Your task to perform on an android device: open app "AliExpress" Image 0: 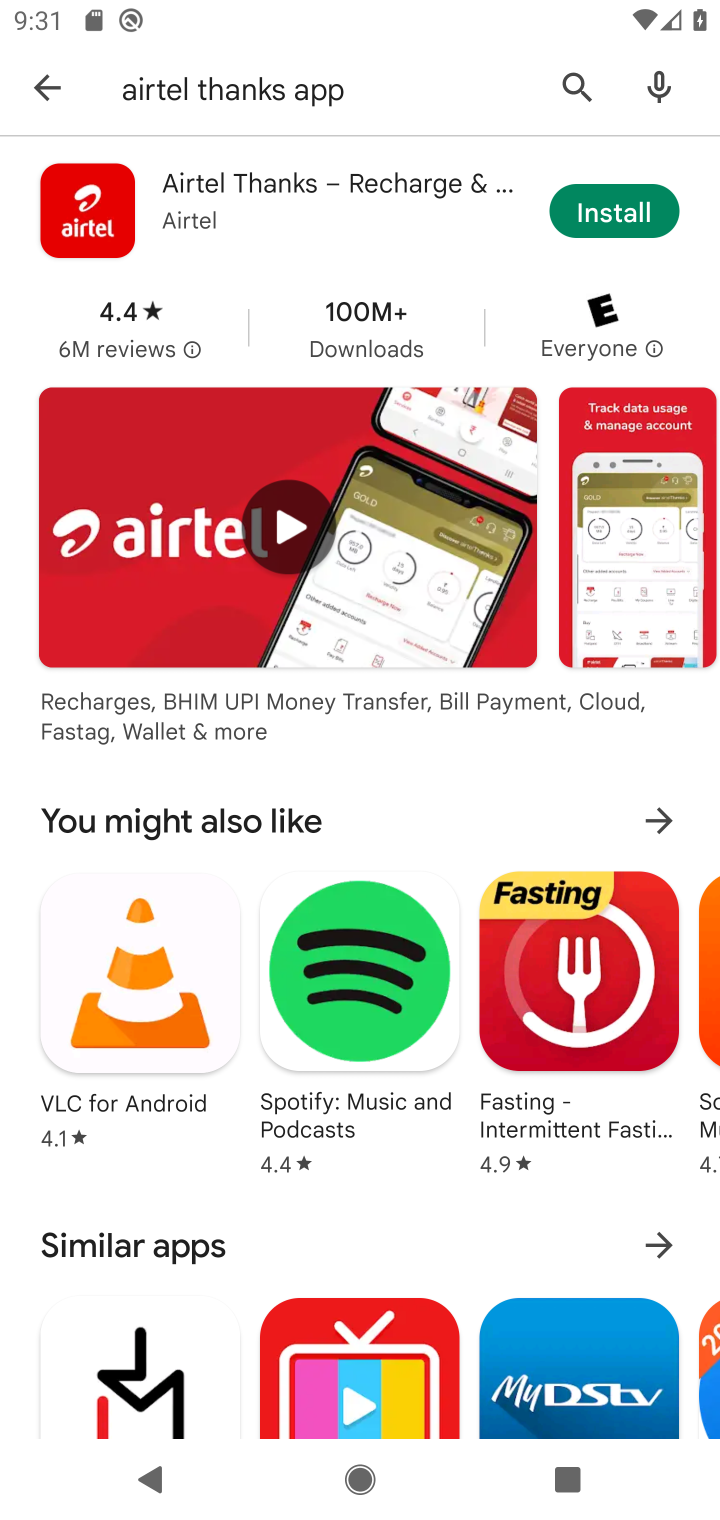
Step 0: click (68, 74)
Your task to perform on an android device: open app "AliExpress" Image 1: 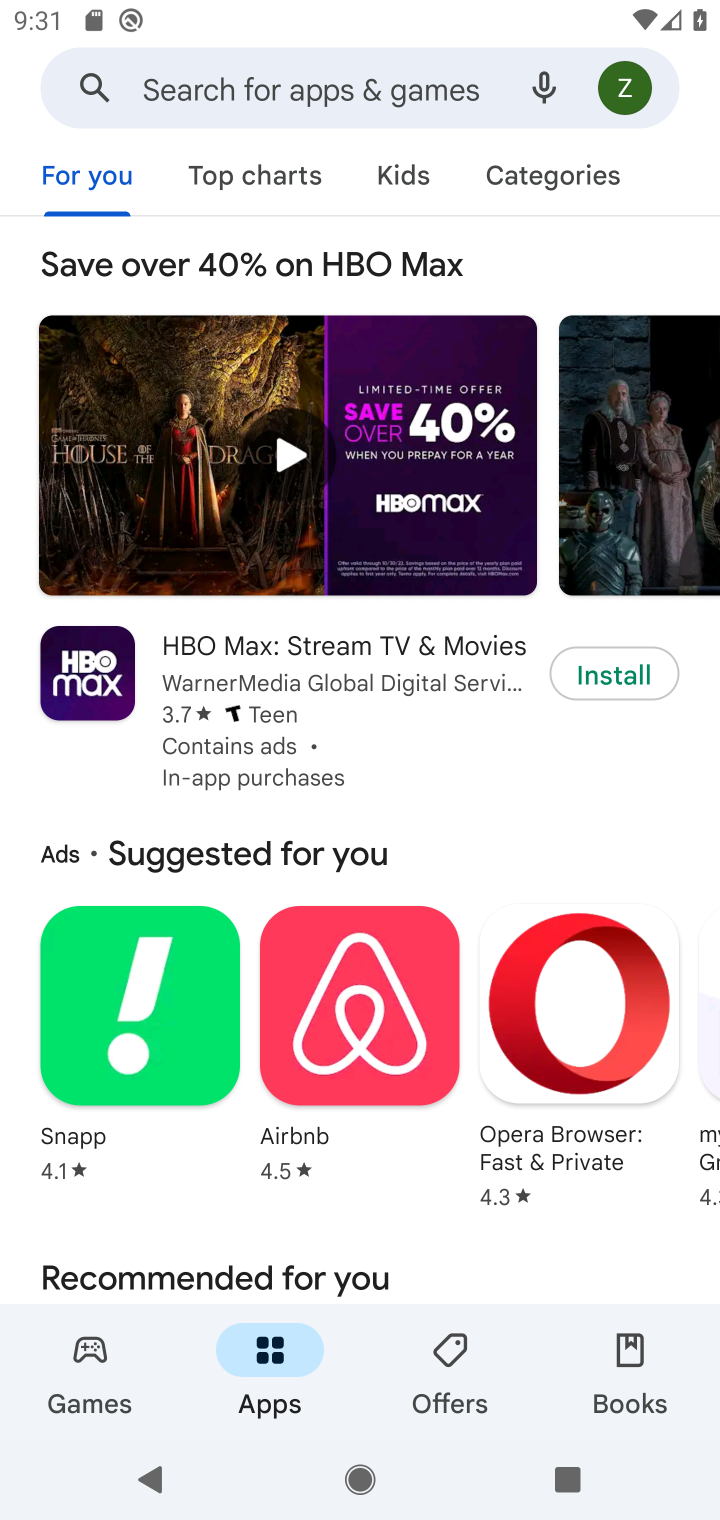
Step 1: click (424, 64)
Your task to perform on an android device: open app "AliExpress" Image 2: 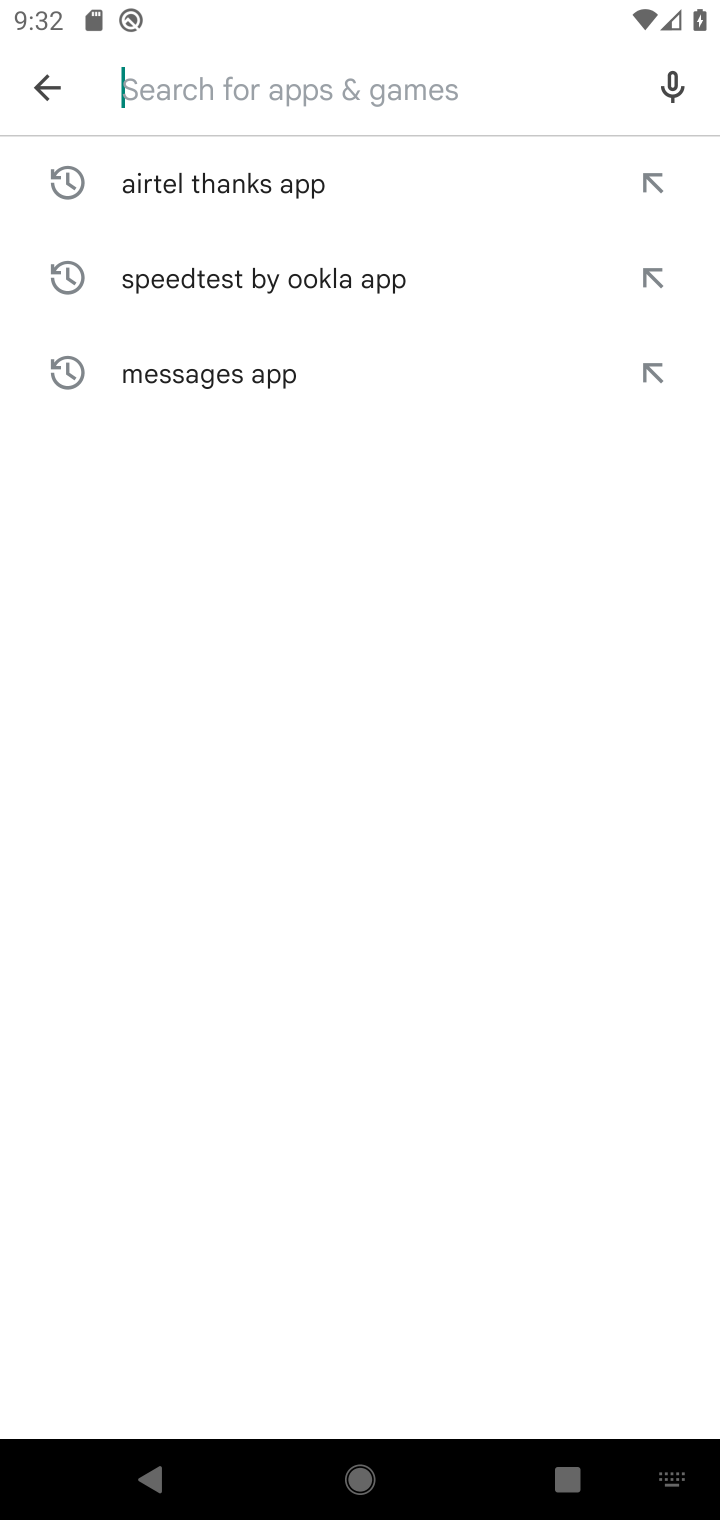
Step 2: type "AliExpress "
Your task to perform on an android device: open app "AliExpress" Image 3: 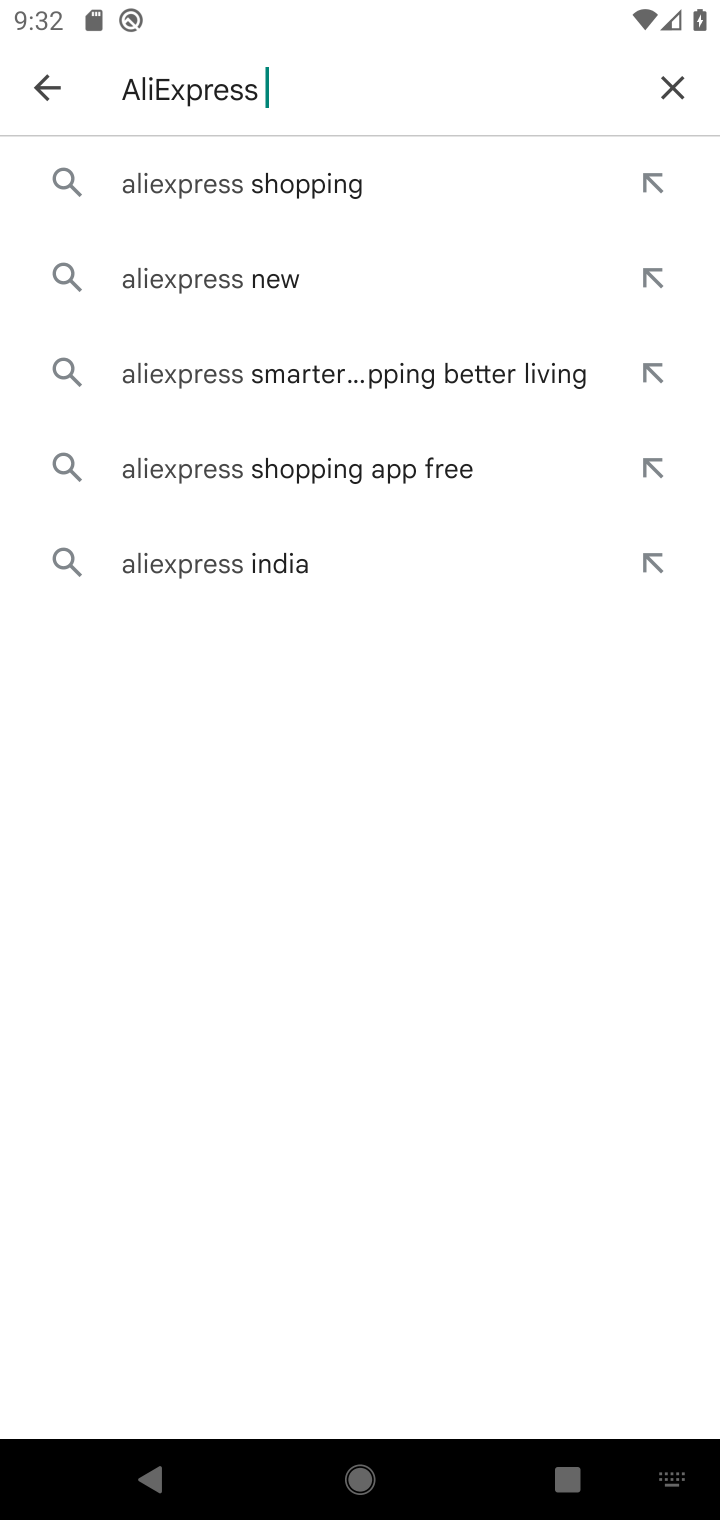
Step 3: click (306, 181)
Your task to perform on an android device: open app "AliExpress" Image 4: 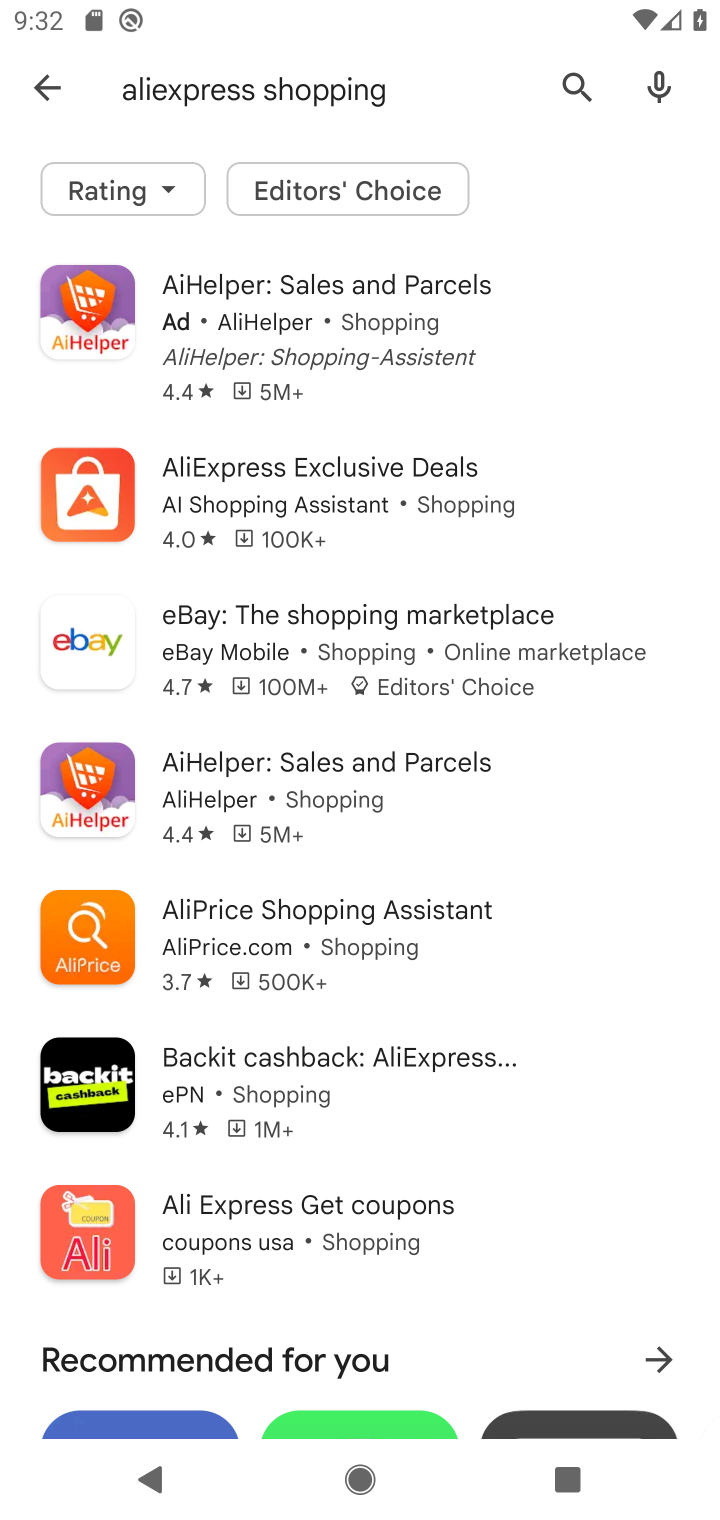
Step 4: click (300, 506)
Your task to perform on an android device: open app "AliExpress" Image 5: 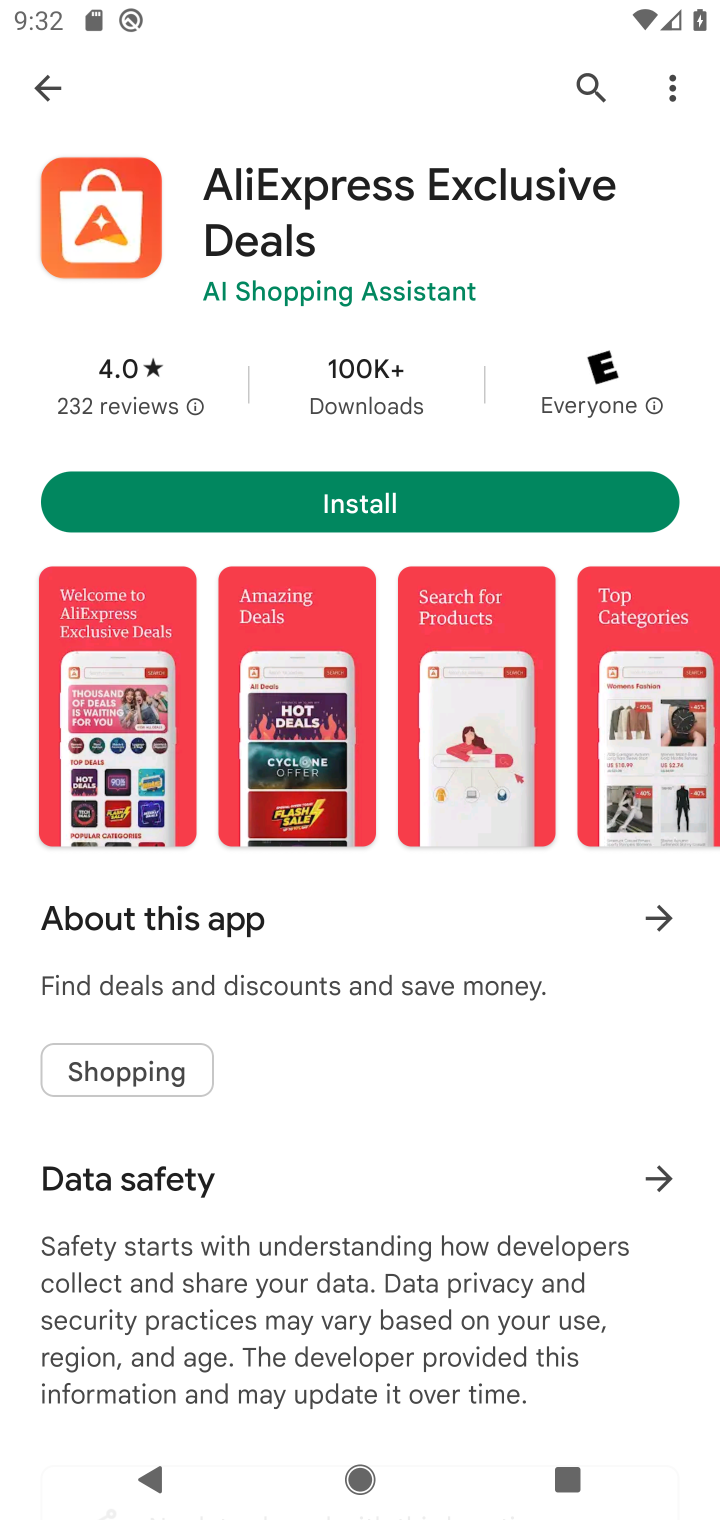
Step 5: click (300, 506)
Your task to perform on an android device: open app "AliExpress" Image 6: 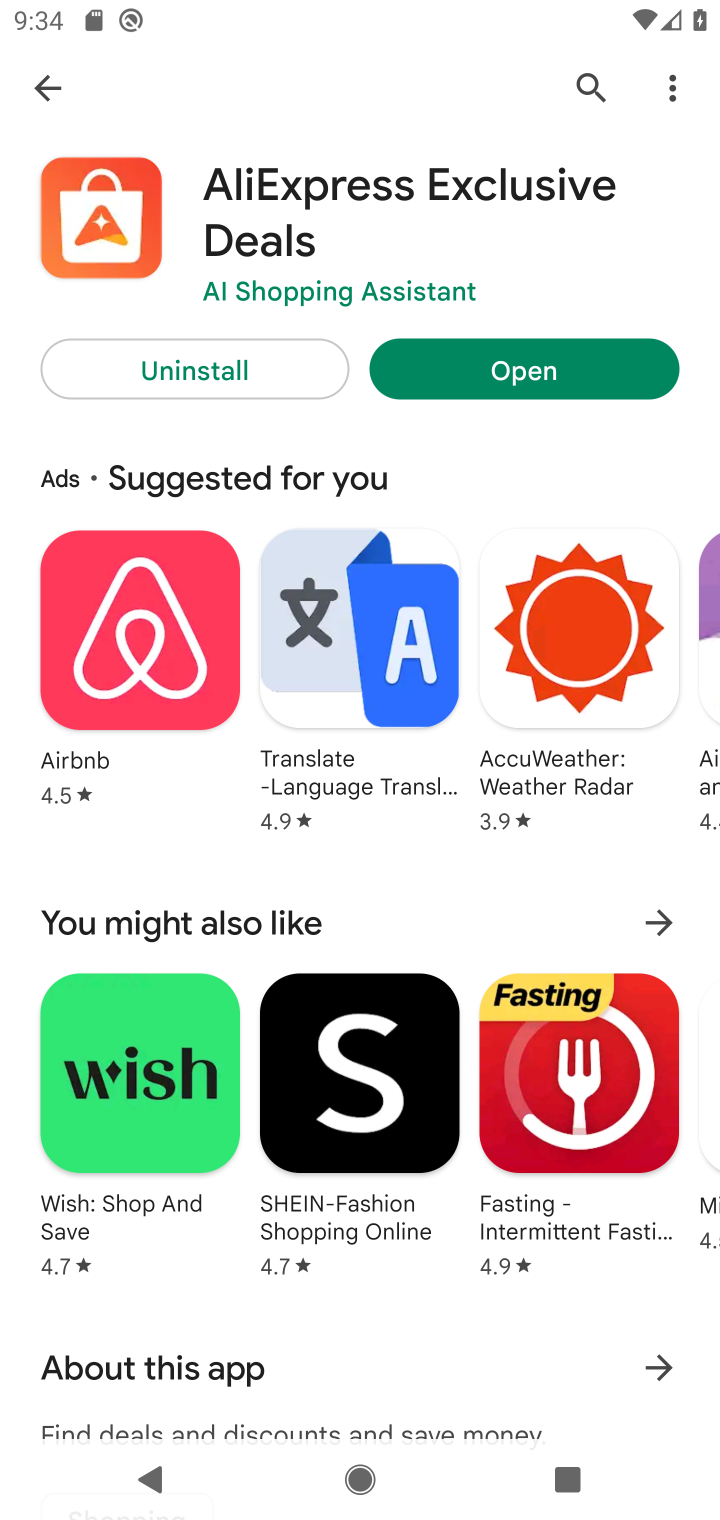
Step 6: task complete